Your task to perform on an android device: turn off notifications settings in the gmail app Image 0: 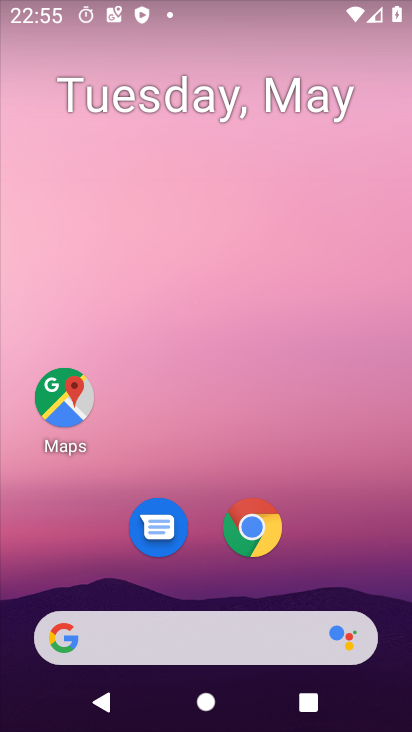
Step 0: click (287, 165)
Your task to perform on an android device: turn off notifications settings in the gmail app Image 1: 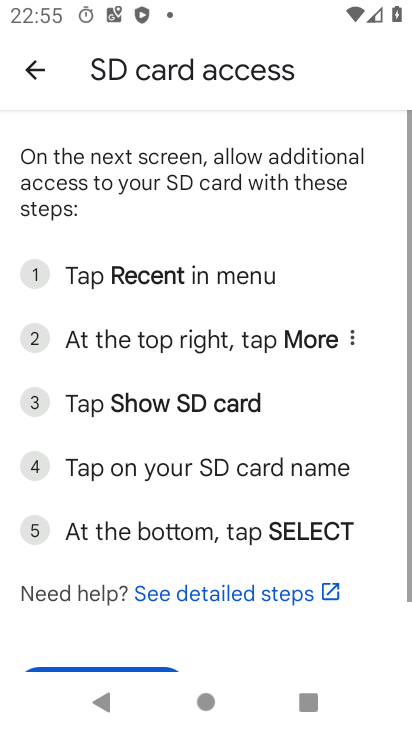
Step 1: press home button
Your task to perform on an android device: turn off notifications settings in the gmail app Image 2: 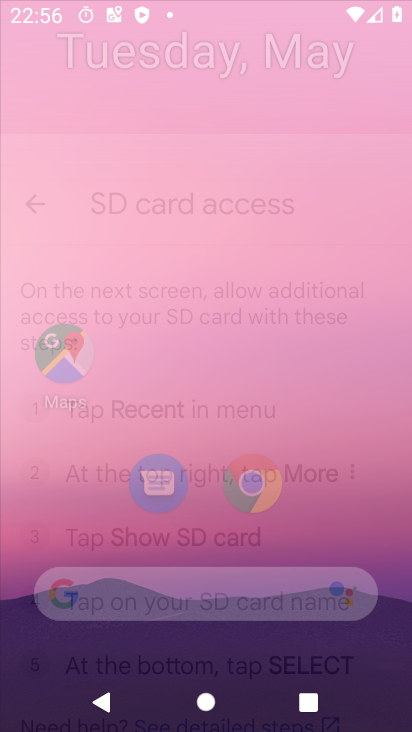
Step 2: drag from (183, 615) to (289, 111)
Your task to perform on an android device: turn off notifications settings in the gmail app Image 3: 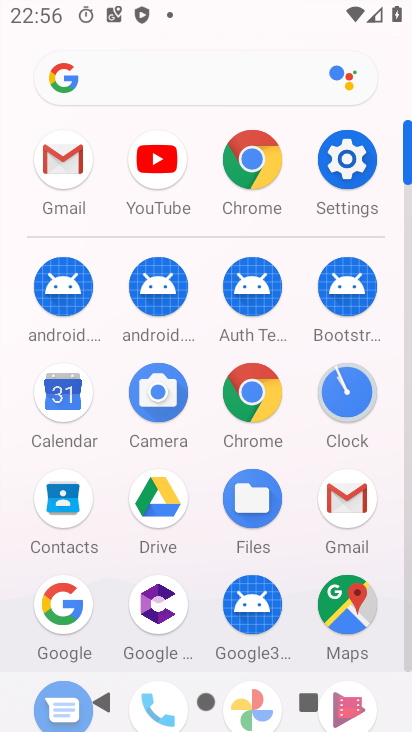
Step 3: click (359, 490)
Your task to perform on an android device: turn off notifications settings in the gmail app Image 4: 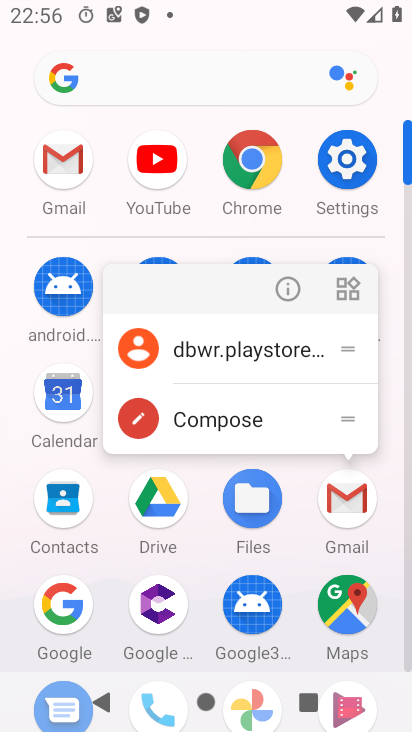
Step 4: click (294, 289)
Your task to perform on an android device: turn off notifications settings in the gmail app Image 5: 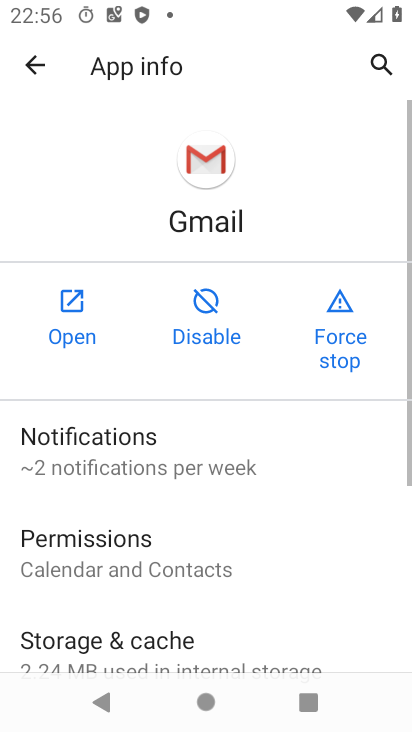
Step 5: click (81, 318)
Your task to perform on an android device: turn off notifications settings in the gmail app Image 6: 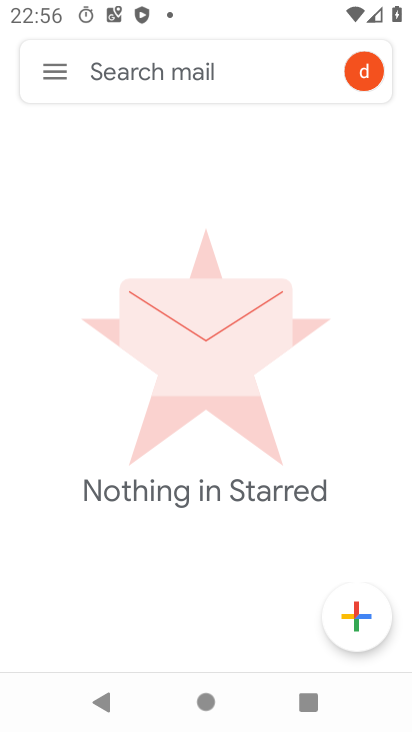
Step 6: click (73, 76)
Your task to perform on an android device: turn off notifications settings in the gmail app Image 7: 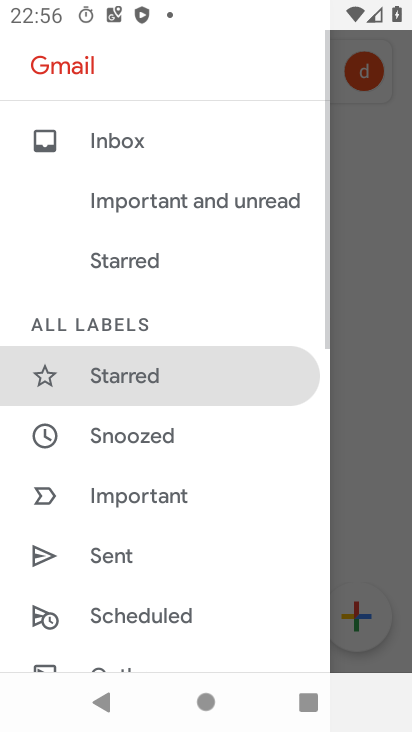
Step 7: drag from (178, 590) to (234, 166)
Your task to perform on an android device: turn off notifications settings in the gmail app Image 8: 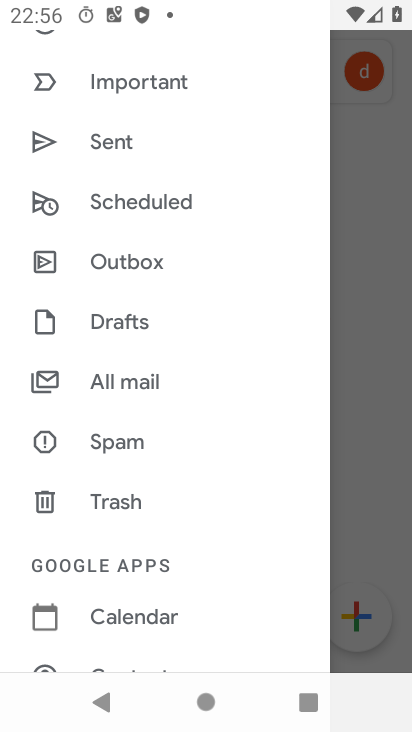
Step 8: drag from (136, 594) to (232, 0)
Your task to perform on an android device: turn off notifications settings in the gmail app Image 9: 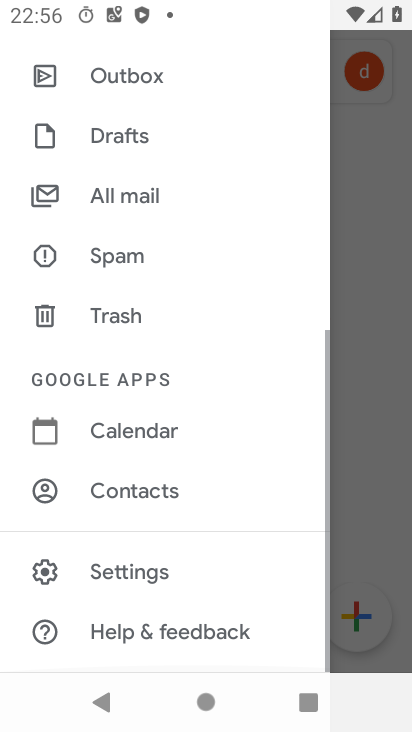
Step 9: click (133, 596)
Your task to perform on an android device: turn off notifications settings in the gmail app Image 10: 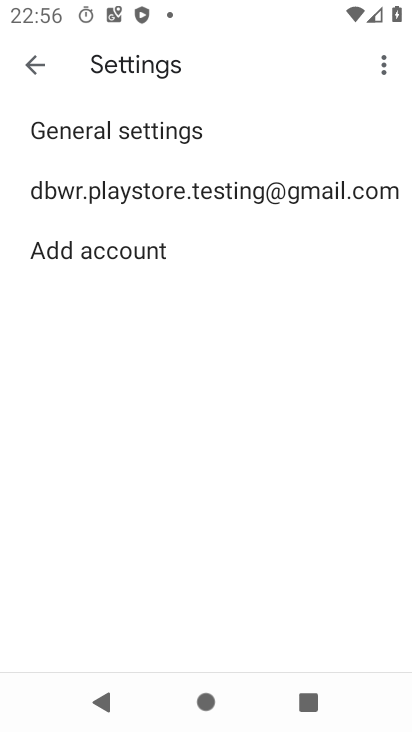
Step 10: drag from (139, 565) to (195, 165)
Your task to perform on an android device: turn off notifications settings in the gmail app Image 11: 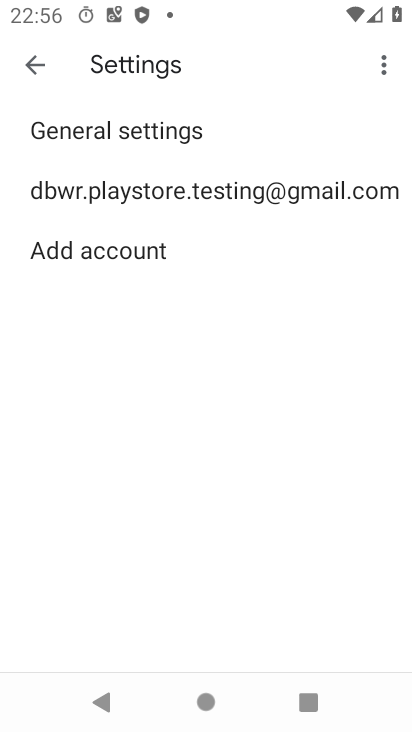
Step 11: click (225, 197)
Your task to perform on an android device: turn off notifications settings in the gmail app Image 12: 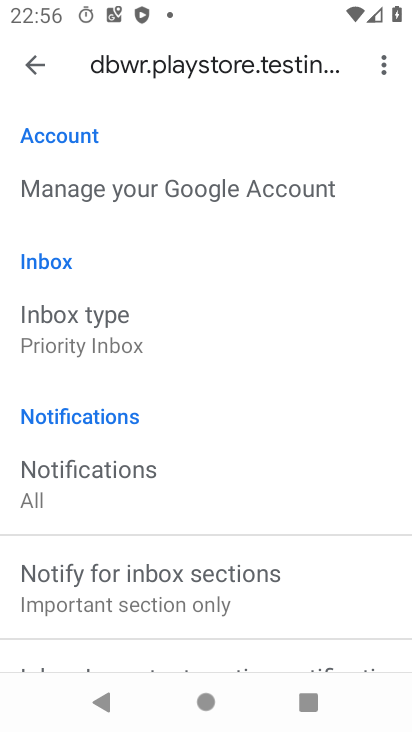
Step 12: drag from (156, 536) to (178, 420)
Your task to perform on an android device: turn off notifications settings in the gmail app Image 13: 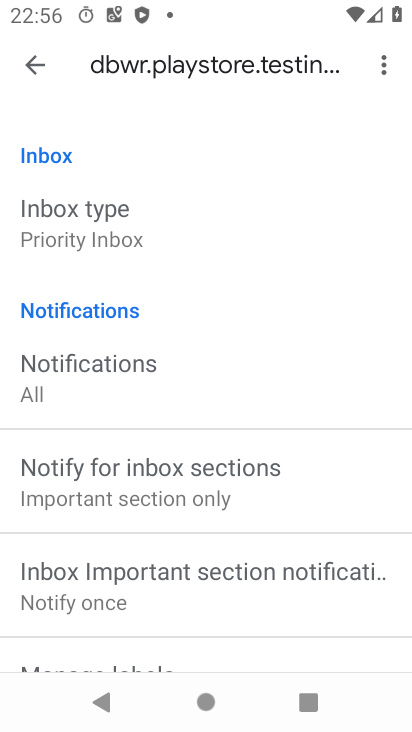
Step 13: drag from (167, 609) to (311, 98)
Your task to perform on an android device: turn off notifications settings in the gmail app Image 14: 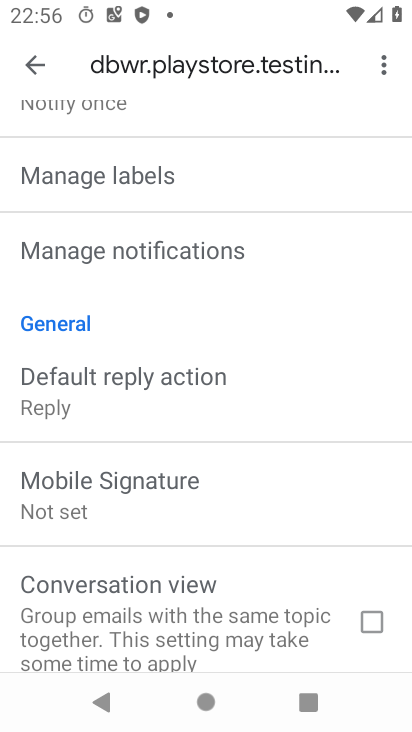
Step 14: click (191, 250)
Your task to perform on an android device: turn off notifications settings in the gmail app Image 15: 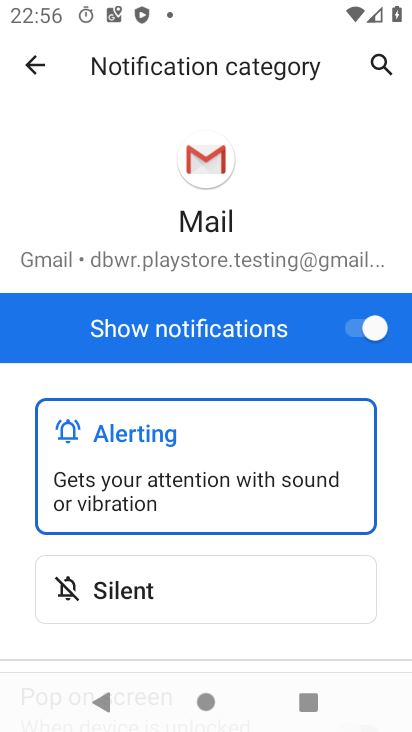
Step 15: click (369, 315)
Your task to perform on an android device: turn off notifications settings in the gmail app Image 16: 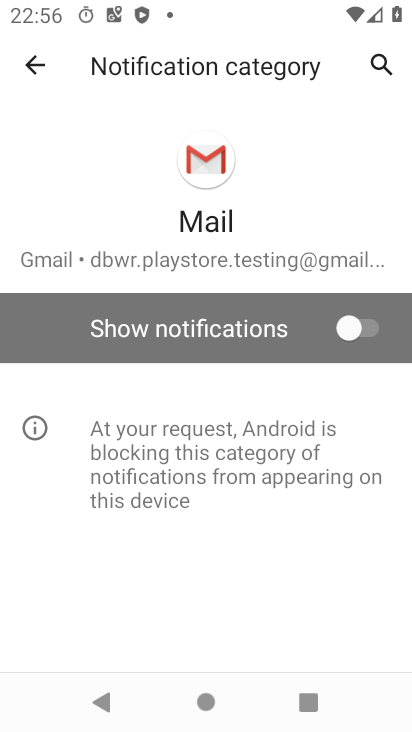
Step 16: task complete